Your task to perform on an android device: turn on data saver in the chrome app Image 0: 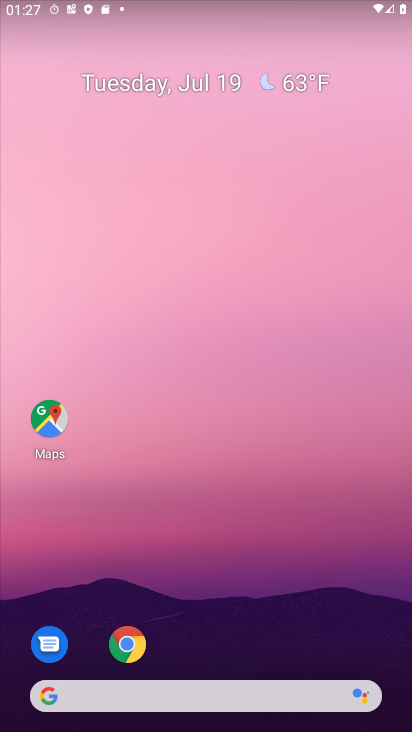
Step 0: click (129, 648)
Your task to perform on an android device: turn on data saver in the chrome app Image 1: 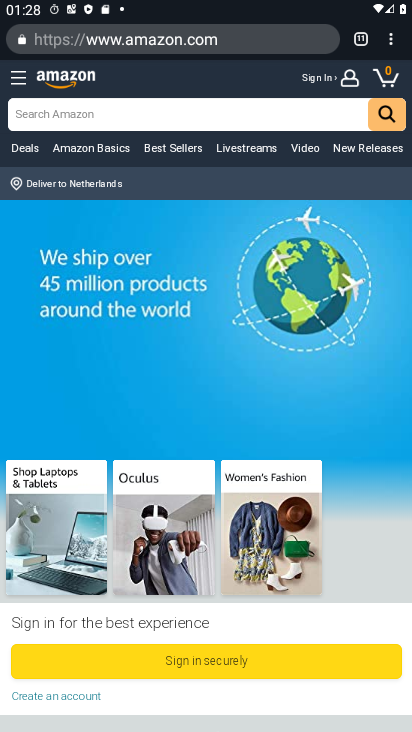
Step 1: click (394, 40)
Your task to perform on an android device: turn on data saver in the chrome app Image 2: 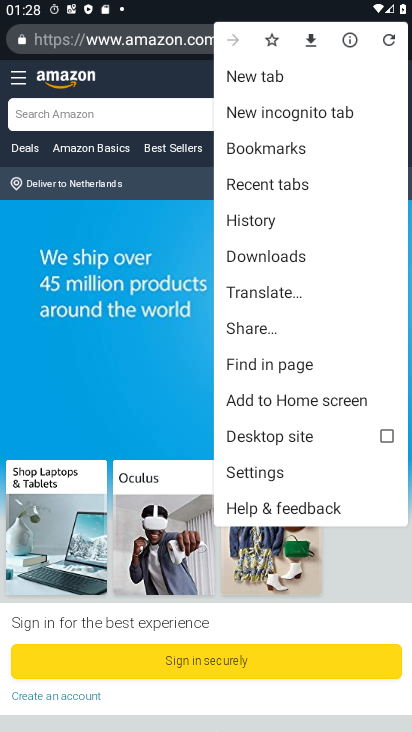
Step 2: click (255, 468)
Your task to perform on an android device: turn on data saver in the chrome app Image 3: 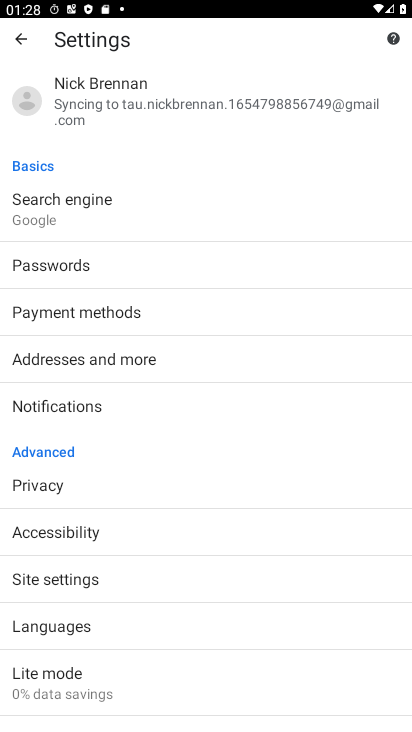
Step 3: click (44, 675)
Your task to perform on an android device: turn on data saver in the chrome app Image 4: 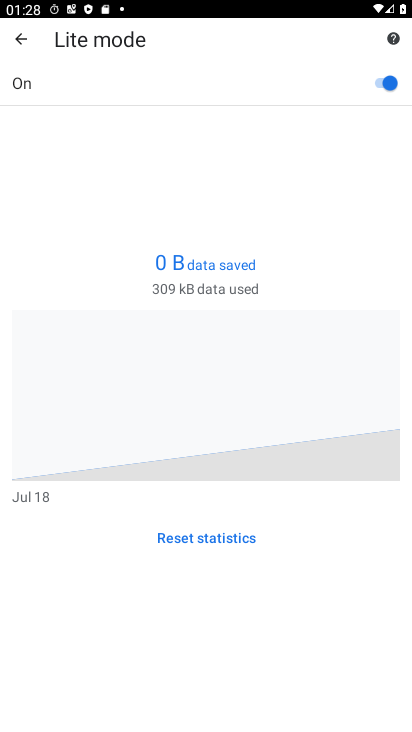
Step 4: task complete